Your task to perform on an android device: turn on sleep mode Image 0: 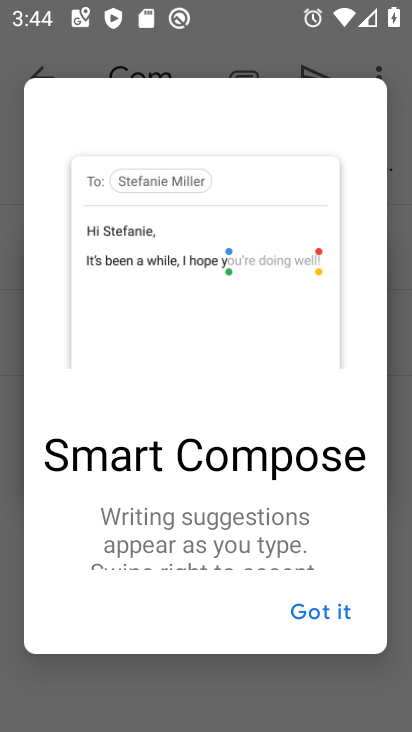
Step 0: press home button
Your task to perform on an android device: turn on sleep mode Image 1: 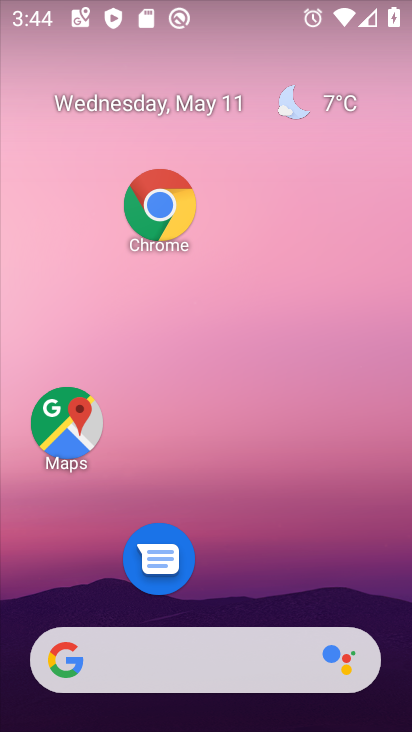
Step 1: drag from (224, 623) to (278, 267)
Your task to perform on an android device: turn on sleep mode Image 2: 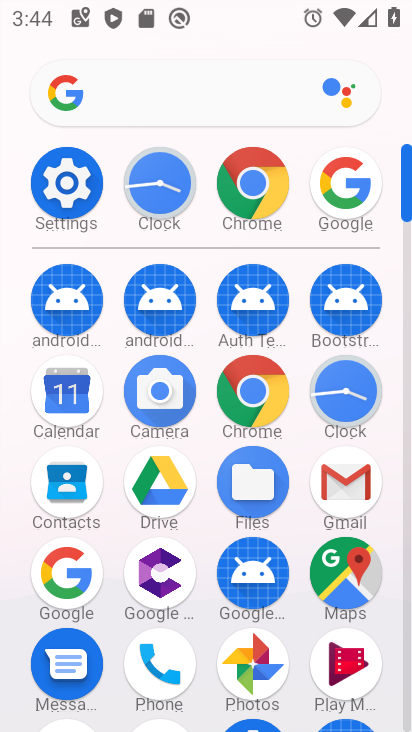
Step 2: click (66, 196)
Your task to perform on an android device: turn on sleep mode Image 3: 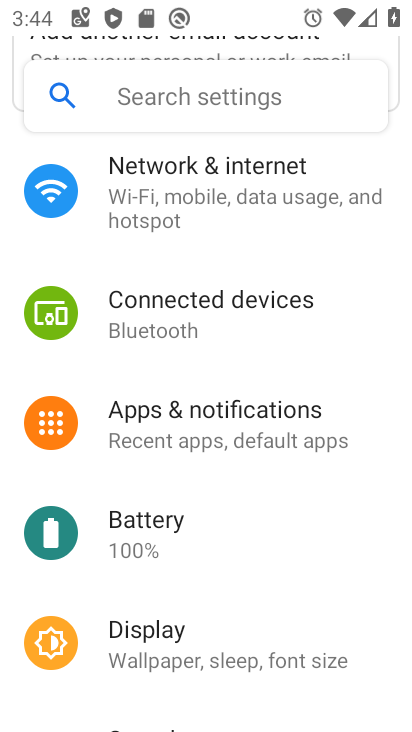
Step 3: click (210, 653)
Your task to perform on an android device: turn on sleep mode Image 4: 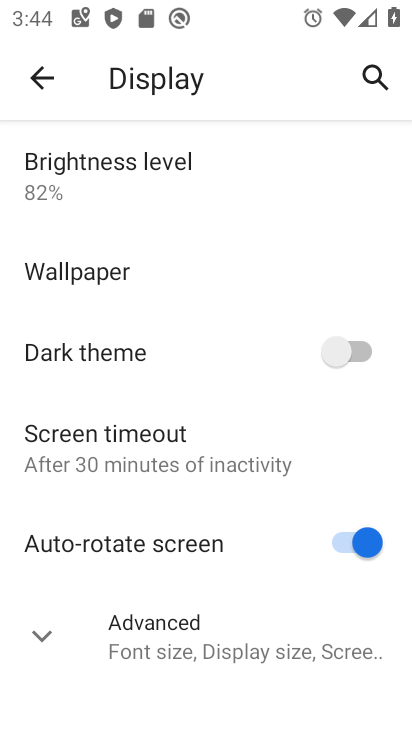
Step 4: click (360, 347)
Your task to perform on an android device: turn on sleep mode Image 5: 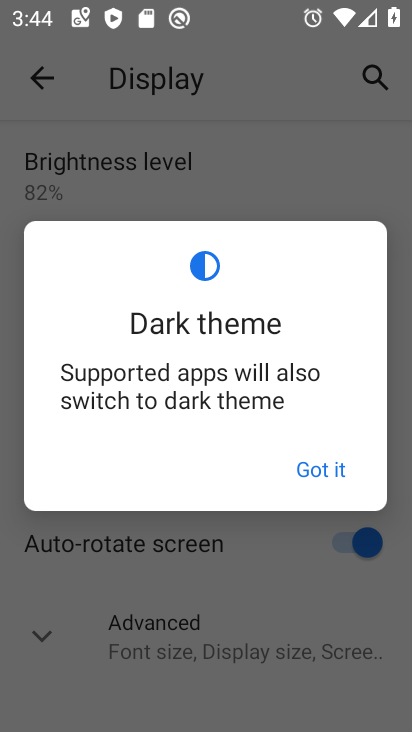
Step 5: click (319, 462)
Your task to perform on an android device: turn on sleep mode Image 6: 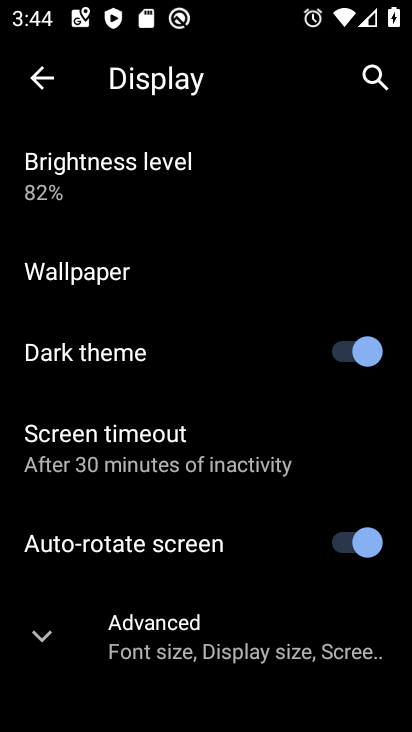
Step 6: task complete